Your task to perform on an android device: change the clock display to show seconds Image 0: 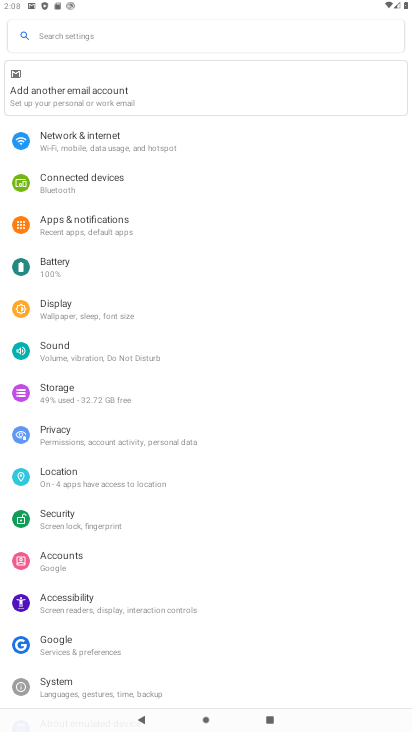
Step 0: press home button
Your task to perform on an android device: change the clock display to show seconds Image 1: 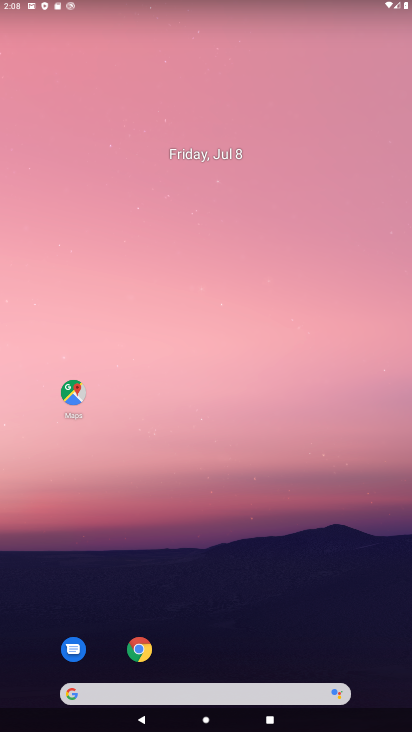
Step 1: drag from (295, 591) to (253, 131)
Your task to perform on an android device: change the clock display to show seconds Image 2: 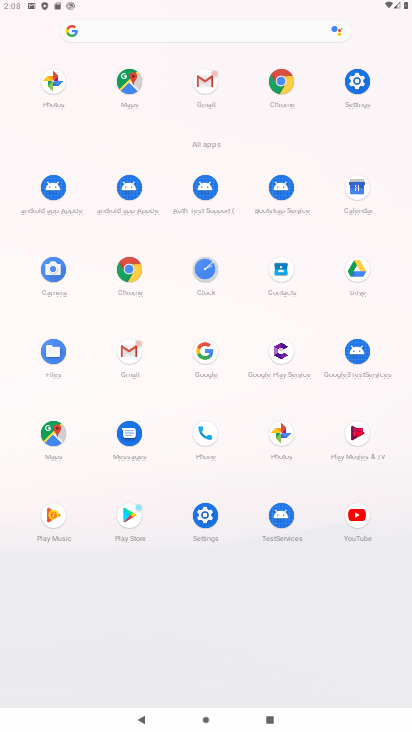
Step 2: click (206, 267)
Your task to perform on an android device: change the clock display to show seconds Image 3: 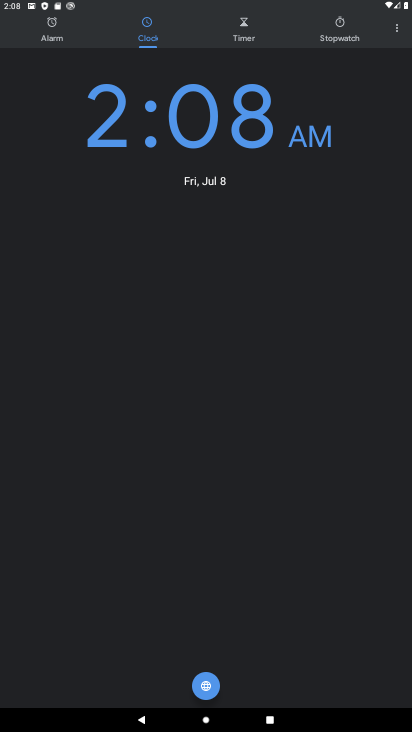
Step 3: click (401, 29)
Your task to perform on an android device: change the clock display to show seconds Image 4: 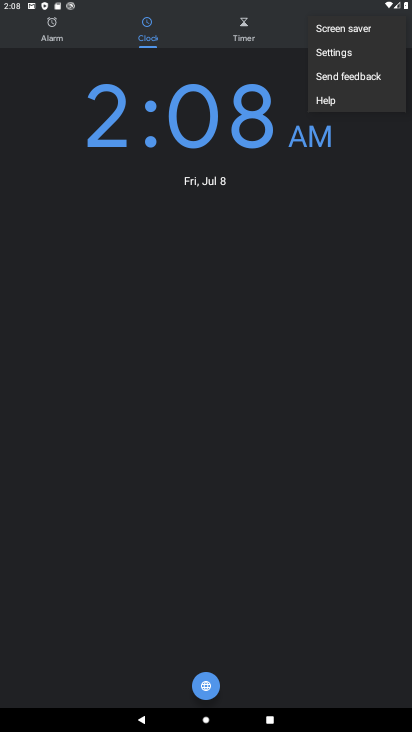
Step 4: click (340, 58)
Your task to perform on an android device: change the clock display to show seconds Image 5: 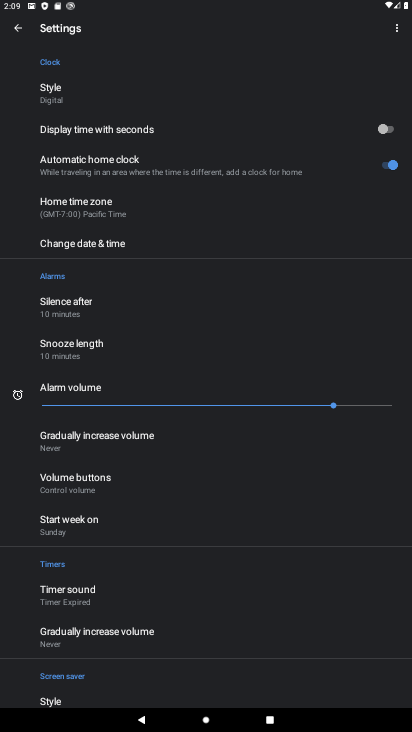
Step 5: click (382, 132)
Your task to perform on an android device: change the clock display to show seconds Image 6: 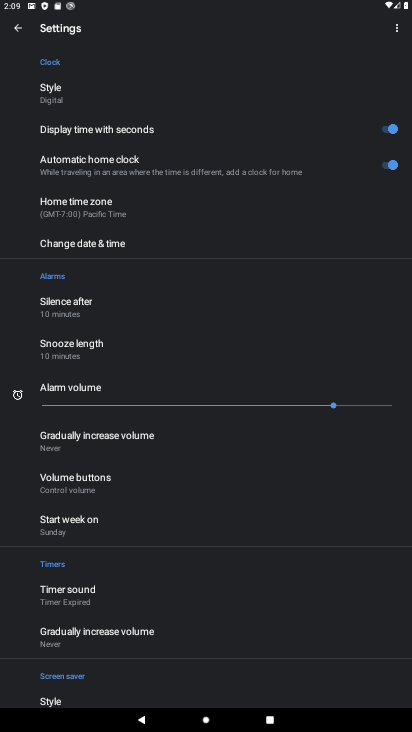
Step 6: task complete